Your task to perform on an android device: toggle notifications settings in the gmail app Image 0: 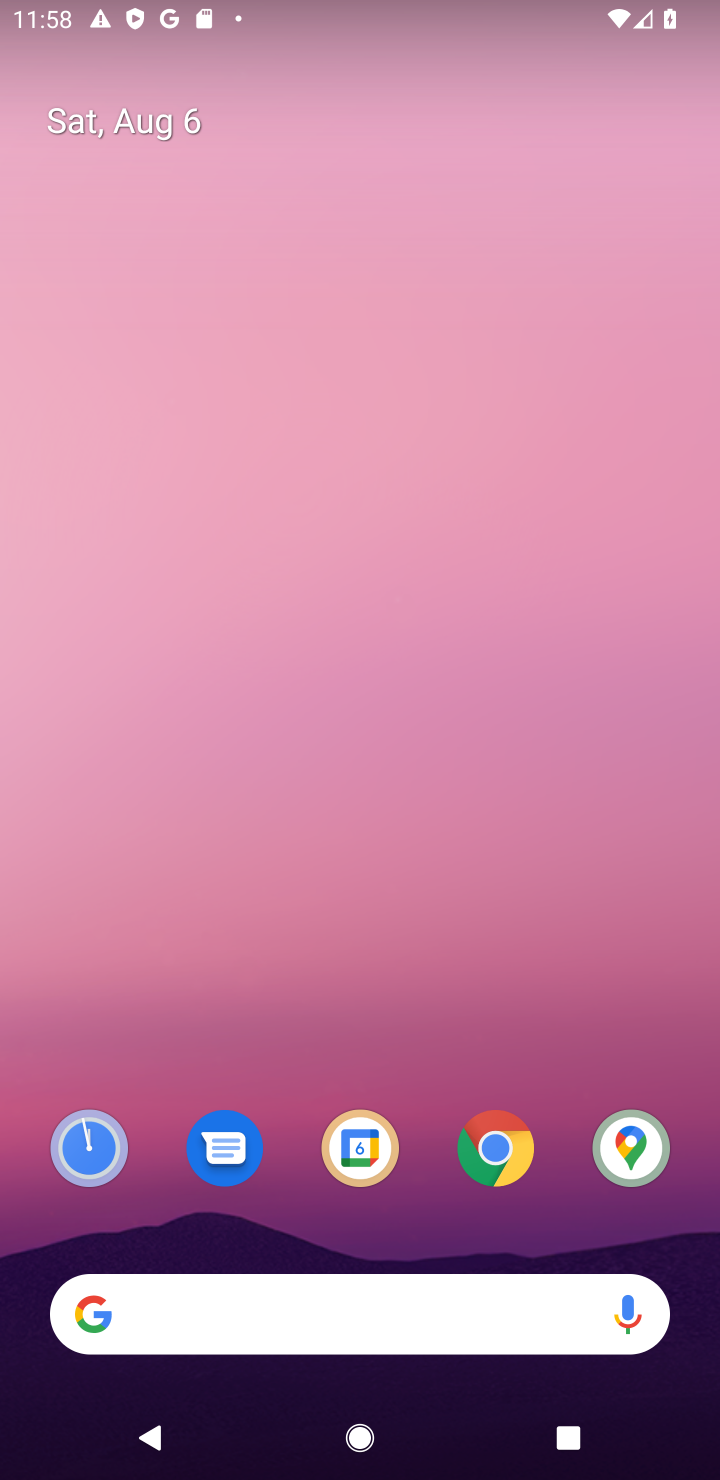
Step 0: drag from (524, 1013) to (516, 3)
Your task to perform on an android device: toggle notifications settings in the gmail app Image 1: 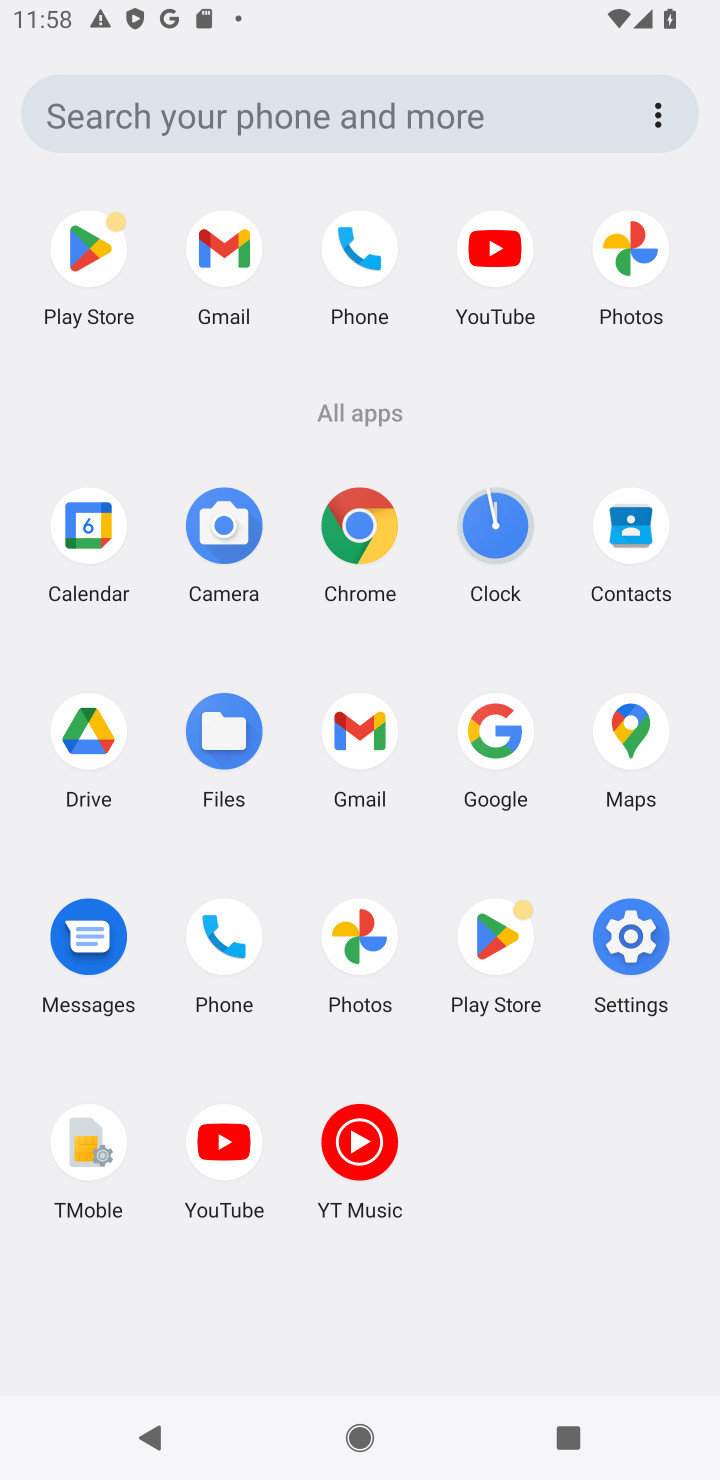
Step 1: click (367, 729)
Your task to perform on an android device: toggle notifications settings in the gmail app Image 2: 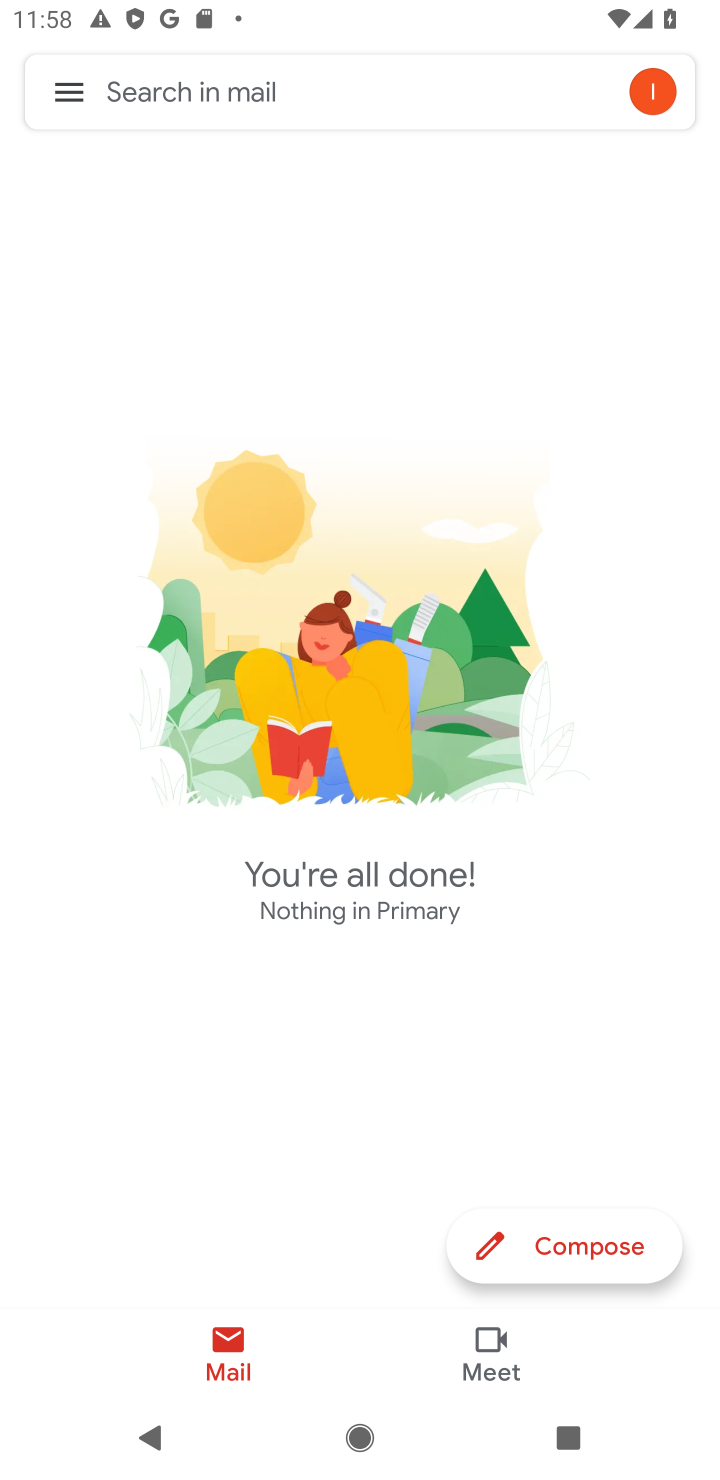
Step 2: click (69, 83)
Your task to perform on an android device: toggle notifications settings in the gmail app Image 3: 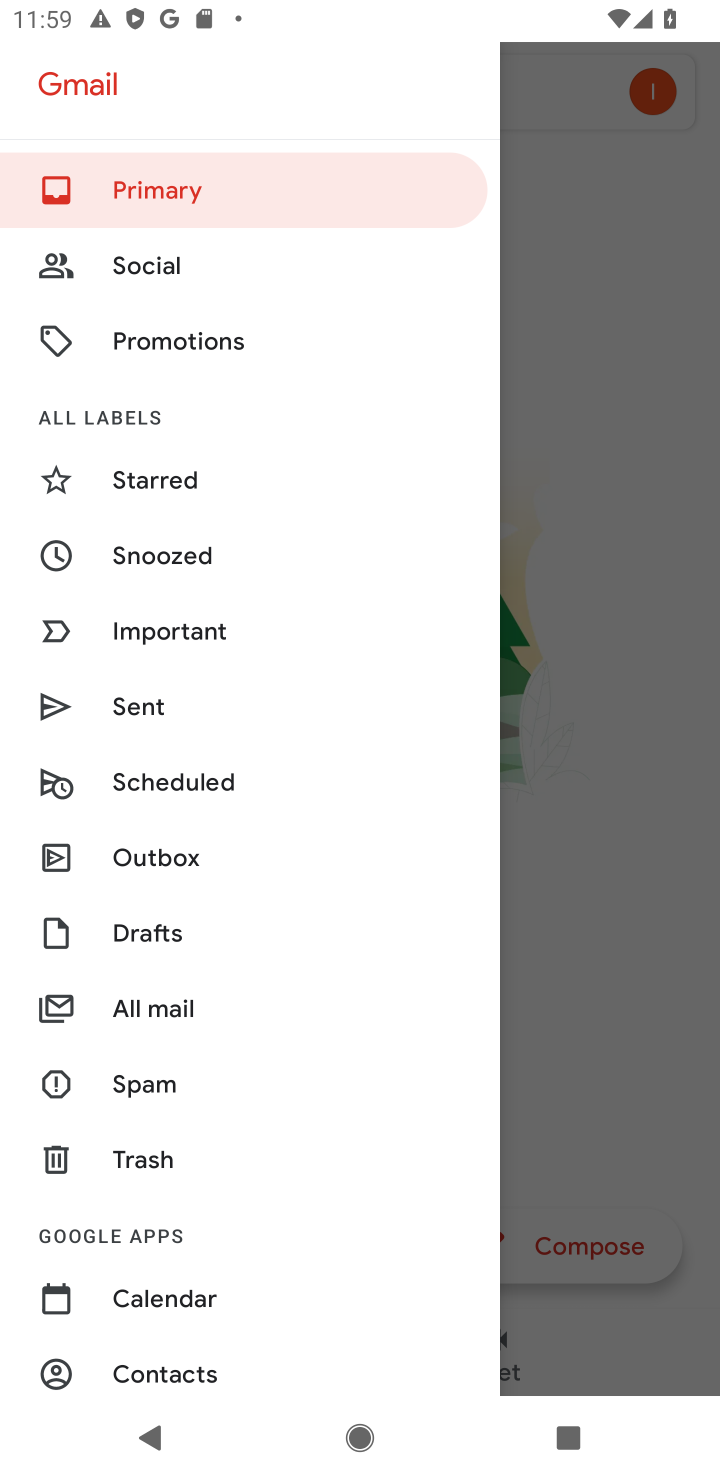
Step 3: drag from (279, 1323) to (425, 736)
Your task to perform on an android device: toggle notifications settings in the gmail app Image 4: 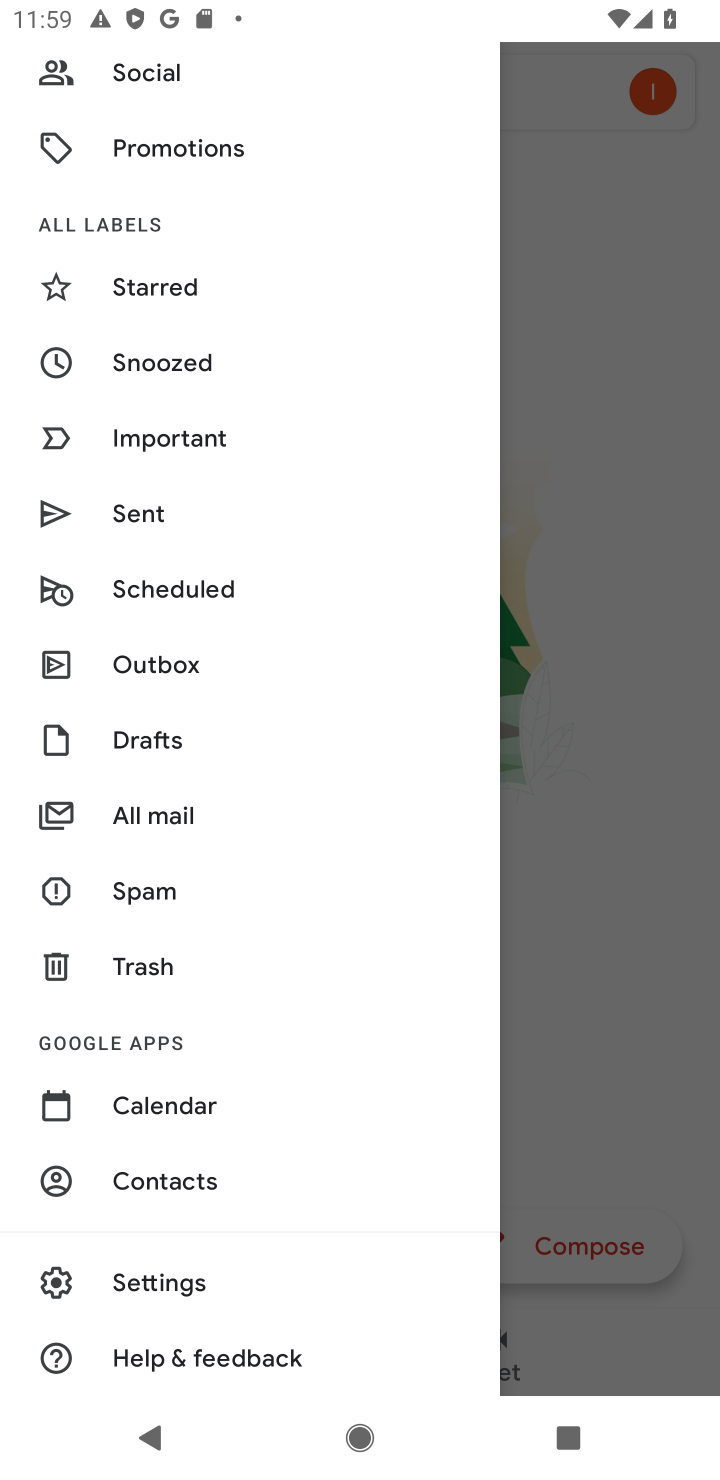
Step 4: click (143, 1278)
Your task to perform on an android device: toggle notifications settings in the gmail app Image 5: 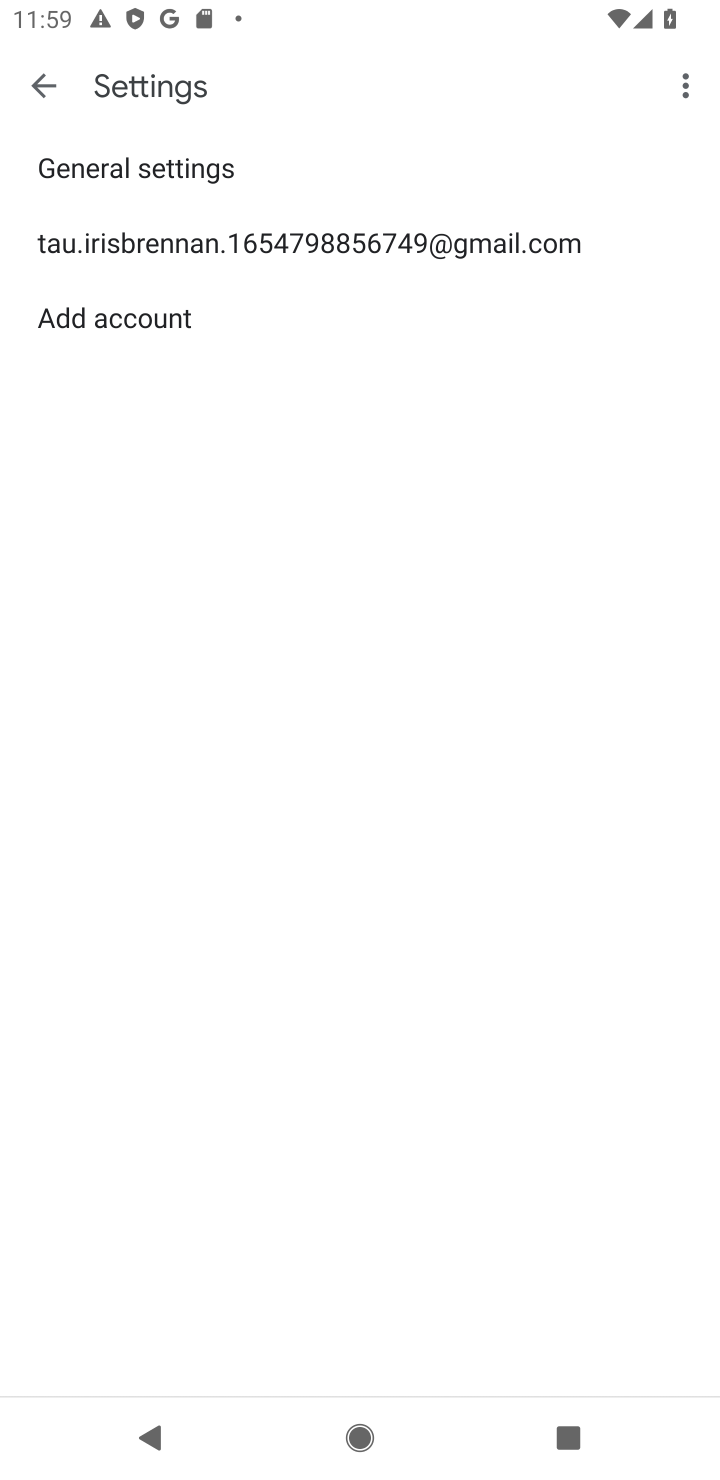
Step 5: click (128, 161)
Your task to perform on an android device: toggle notifications settings in the gmail app Image 6: 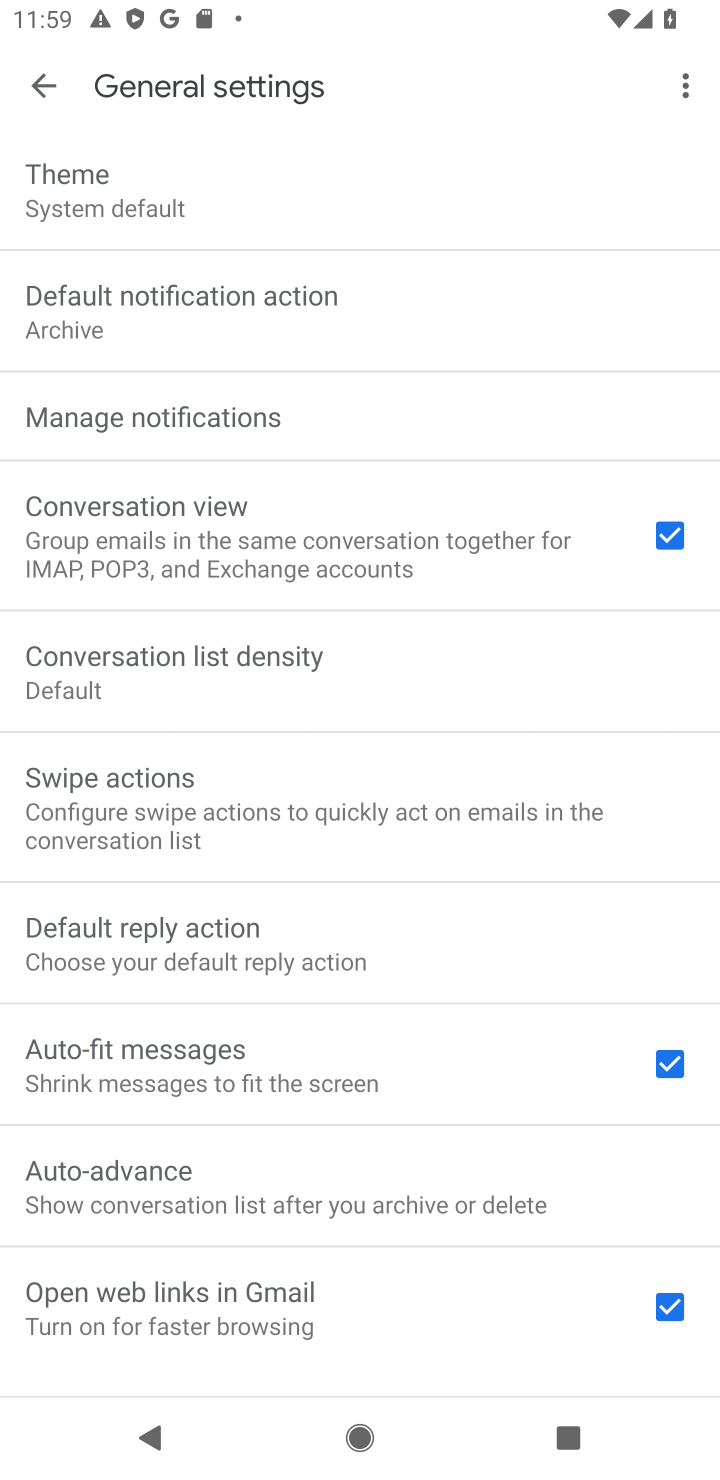
Step 6: click (186, 402)
Your task to perform on an android device: toggle notifications settings in the gmail app Image 7: 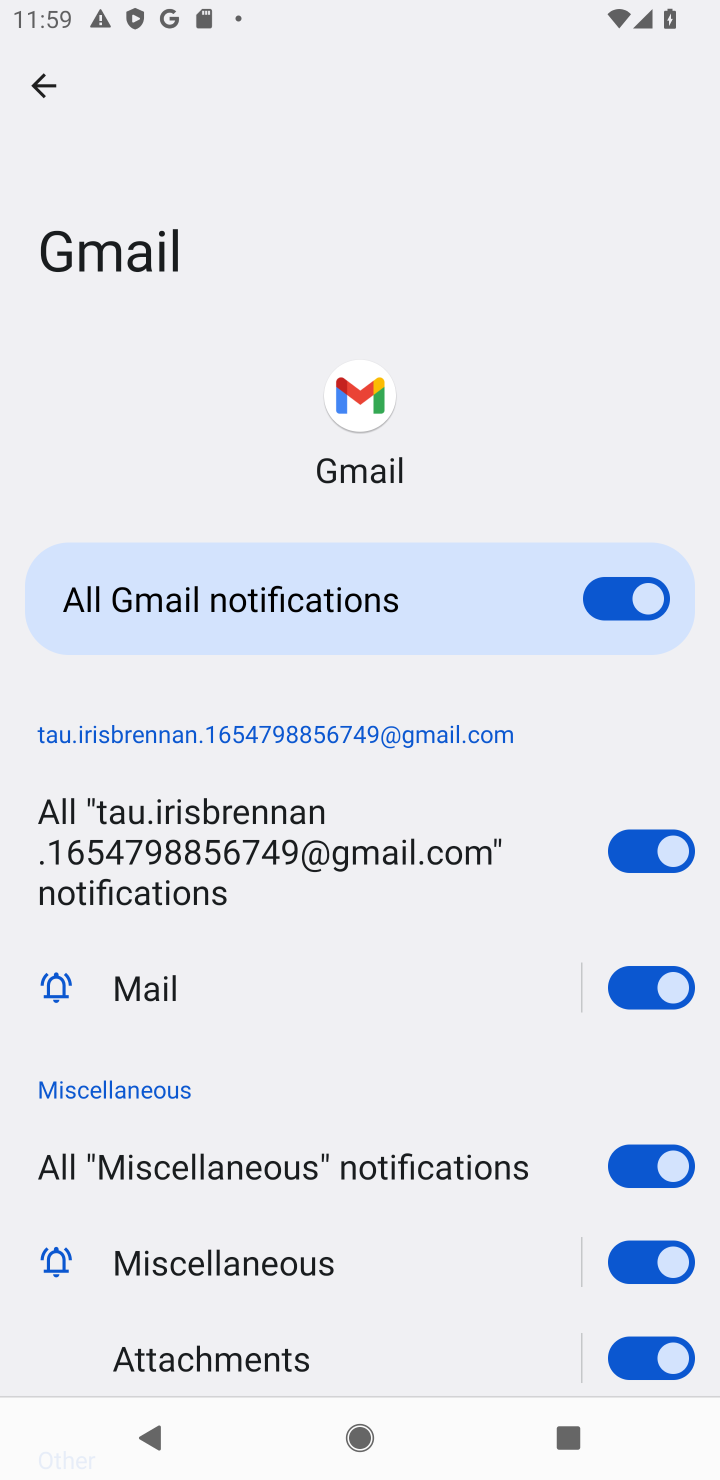
Step 7: click (658, 592)
Your task to perform on an android device: toggle notifications settings in the gmail app Image 8: 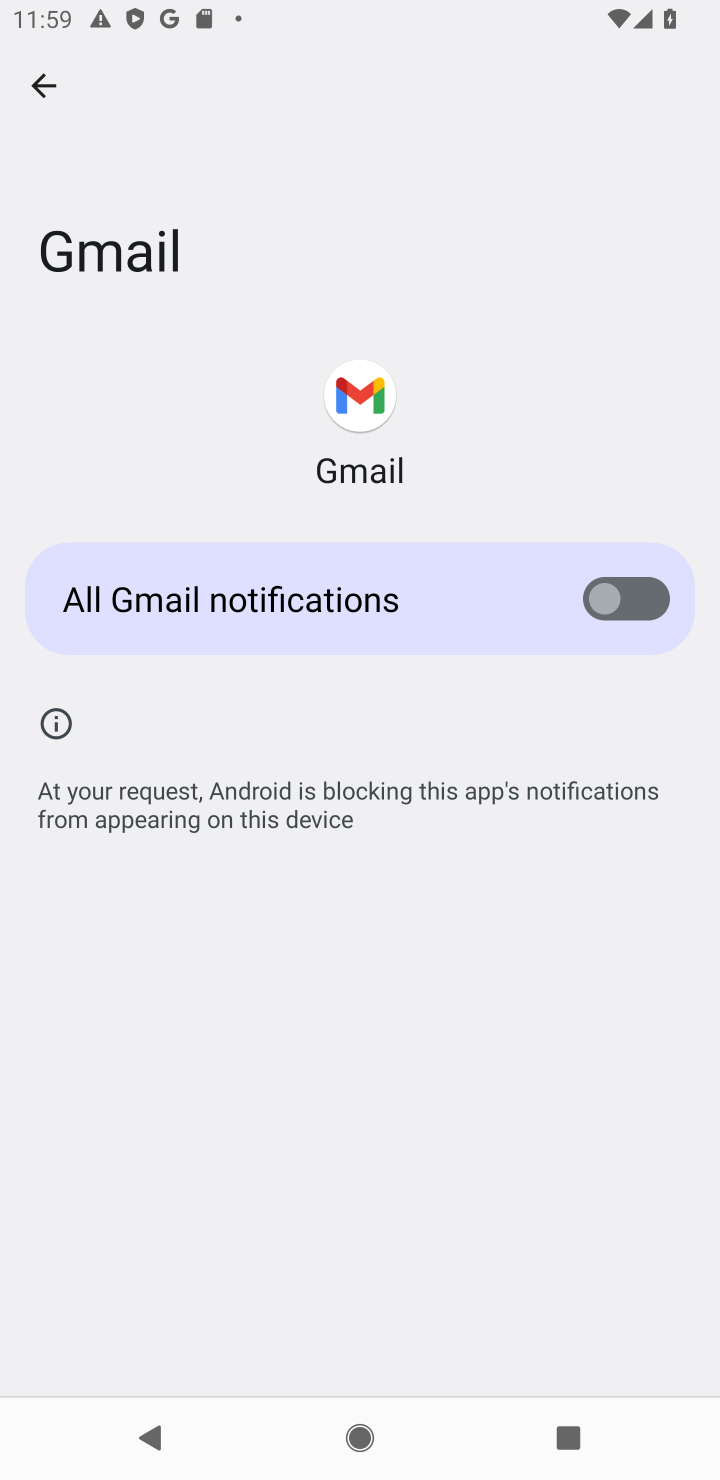
Step 8: task complete